Your task to perform on an android device: Open Android settings Image 0: 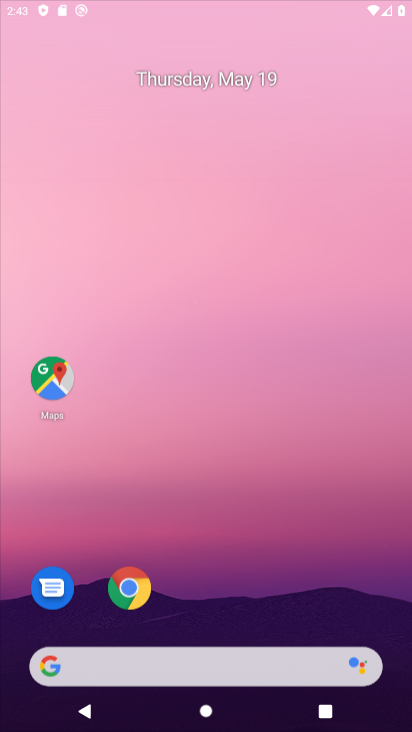
Step 0: click (342, 192)
Your task to perform on an android device: Open Android settings Image 1: 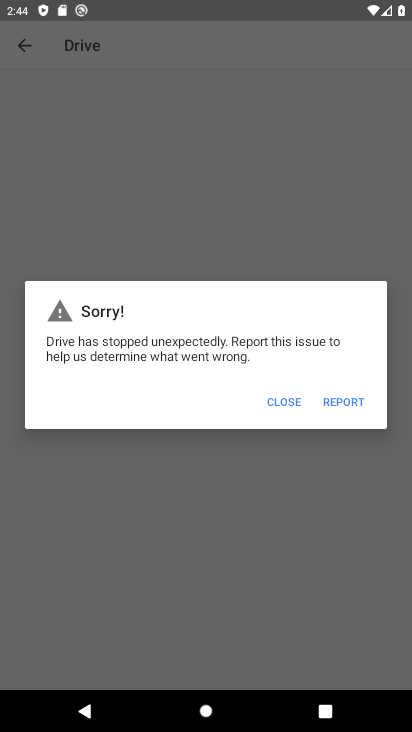
Step 1: press home button
Your task to perform on an android device: Open Android settings Image 2: 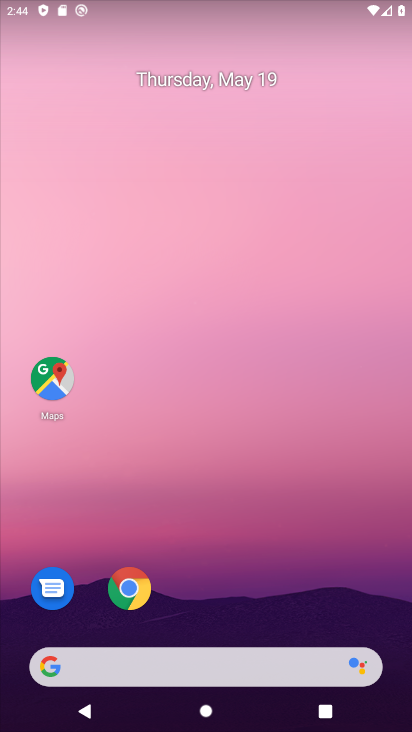
Step 2: drag from (350, 541) to (347, 124)
Your task to perform on an android device: Open Android settings Image 3: 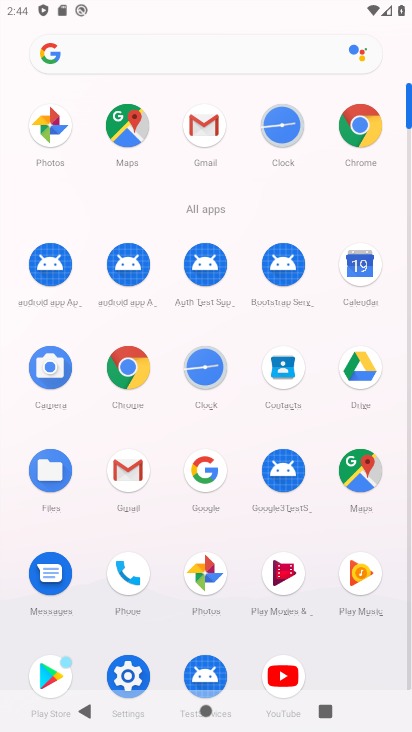
Step 3: click (132, 674)
Your task to perform on an android device: Open Android settings Image 4: 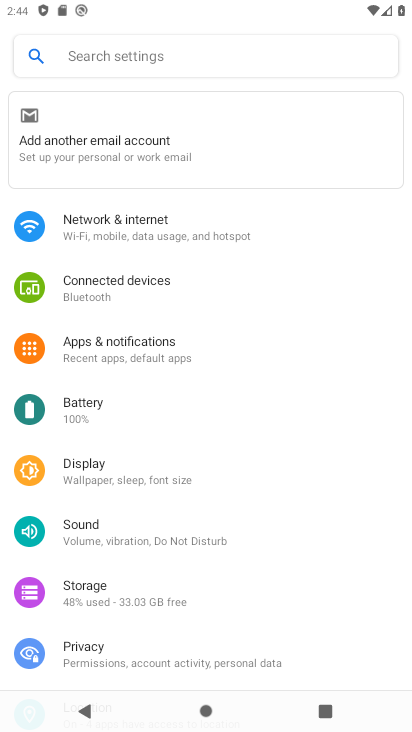
Step 4: task complete